Your task to perform on an android device: Open Maps and search for coffee Image 0: 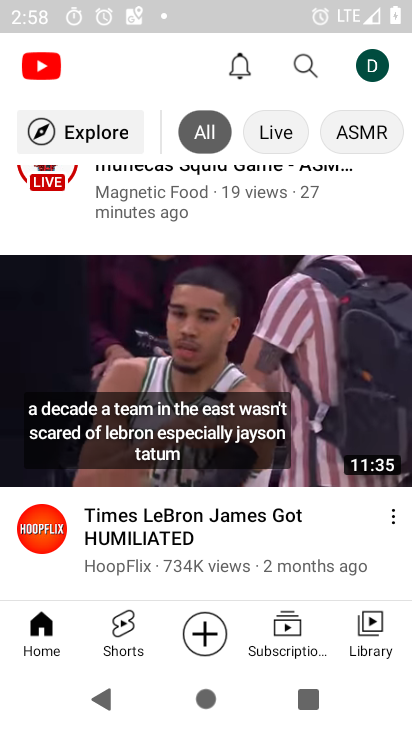
Step 0: press home button
Your task to perform on an android device: Open Maps and search for coffee Image 1: 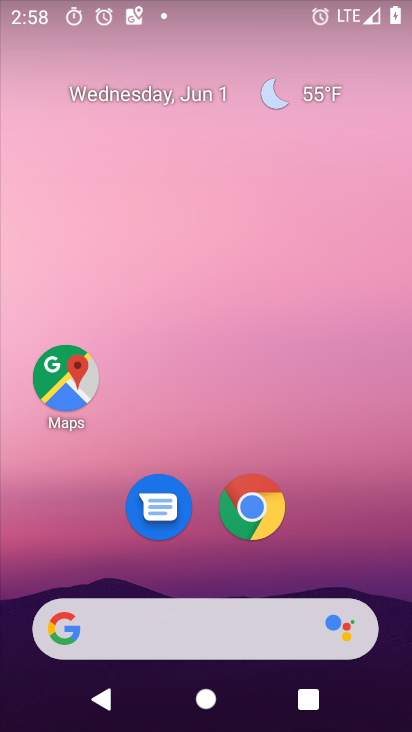
Step 1: click (62, 378)
Your task to perform on an android device: Open Maps and search for coffee Image 2: 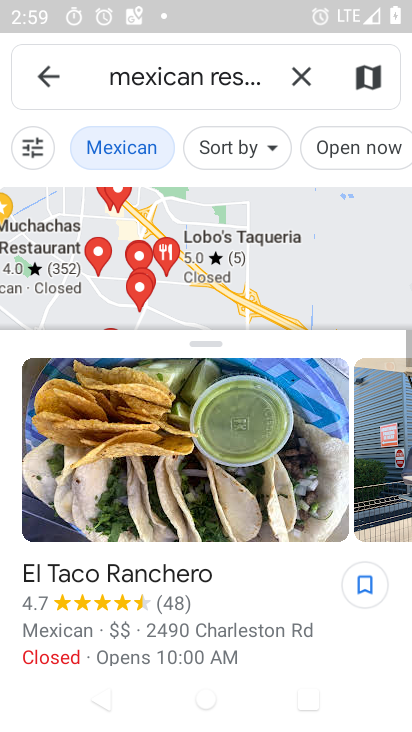
Step 2: click (300, 84)
Your task to perform on an android device: Open Maps and search for coffee Image 3: 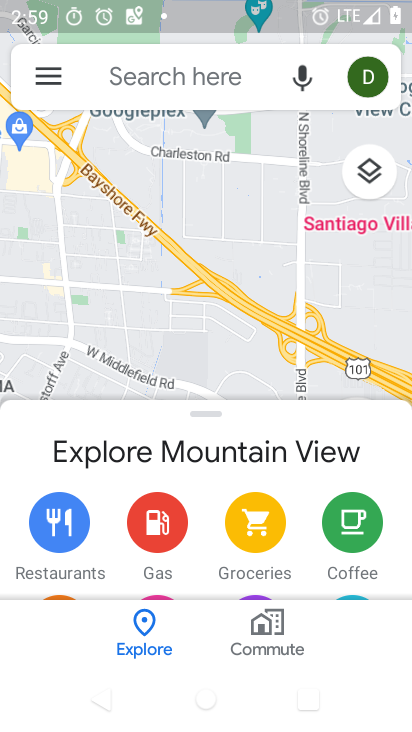
Step 3: click (130, 81)
Your task to perform on an android device: Open Maps and search for coffee Image 4: 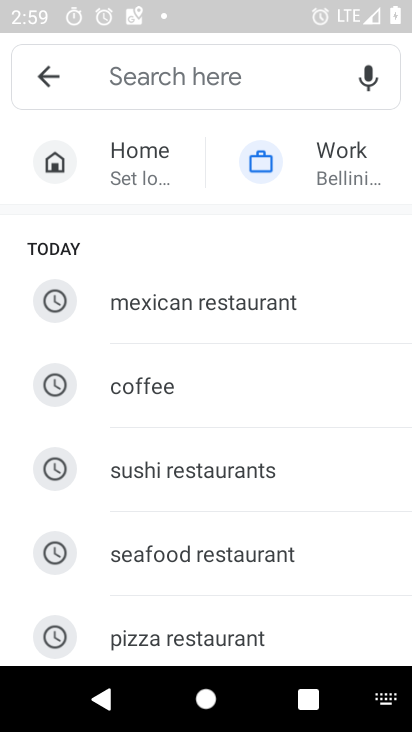
Step 4: type "coffee"
Your task to perform on an android device: Open Maps and search for coffee Image 5: 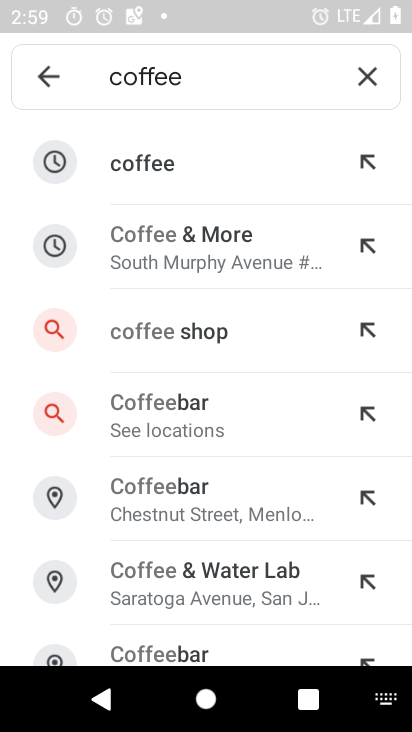
Step 5: click (136, 166)
Your task to perform on an android device: Open Maps and search for coffee Image 6: 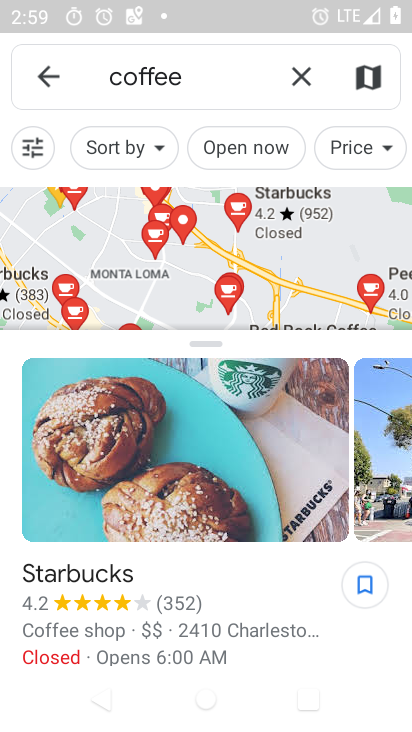
Step 6: task complete